Your task to perform on an android device: toggle improve location accuracy Image 0: 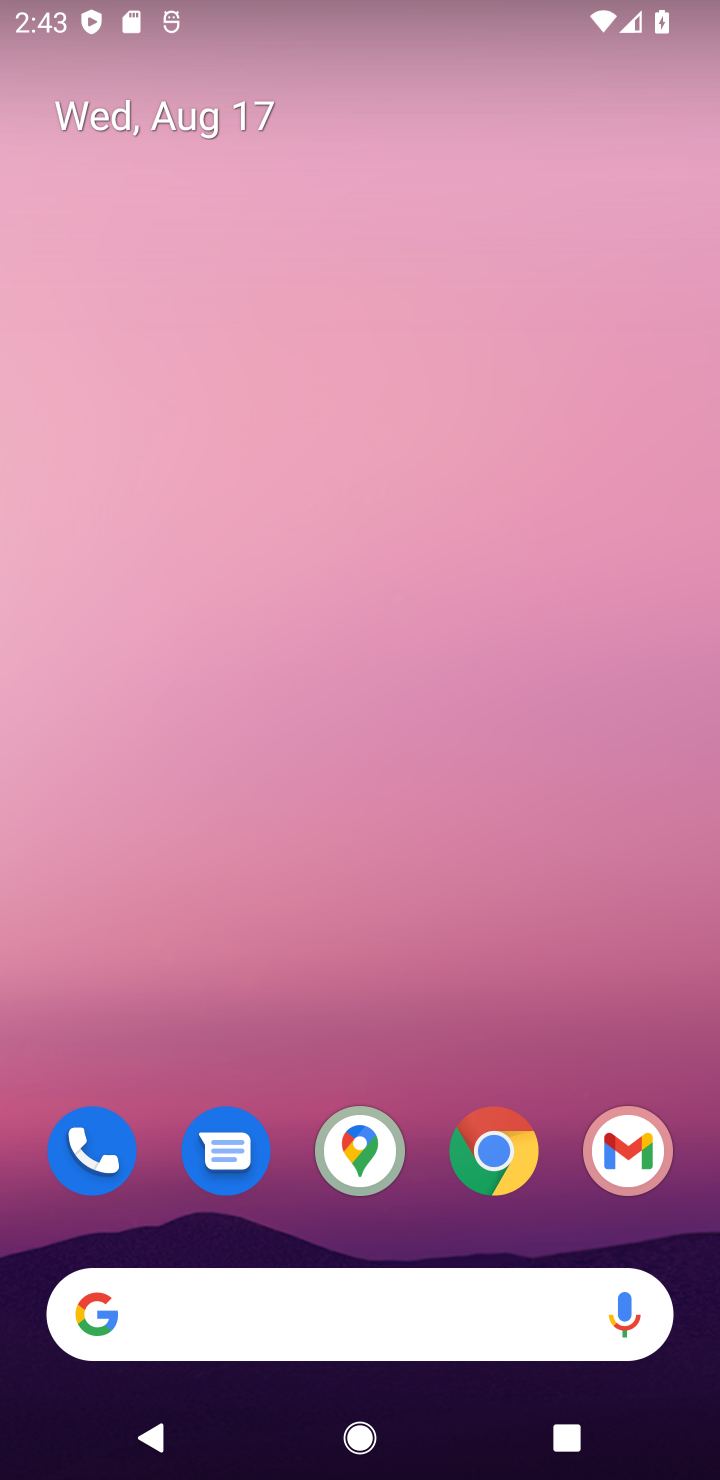
Step 0: drag from (312, 1249) to (328, 508)
Your task to perform on an android device: toggle improve location accuracy Image 1: 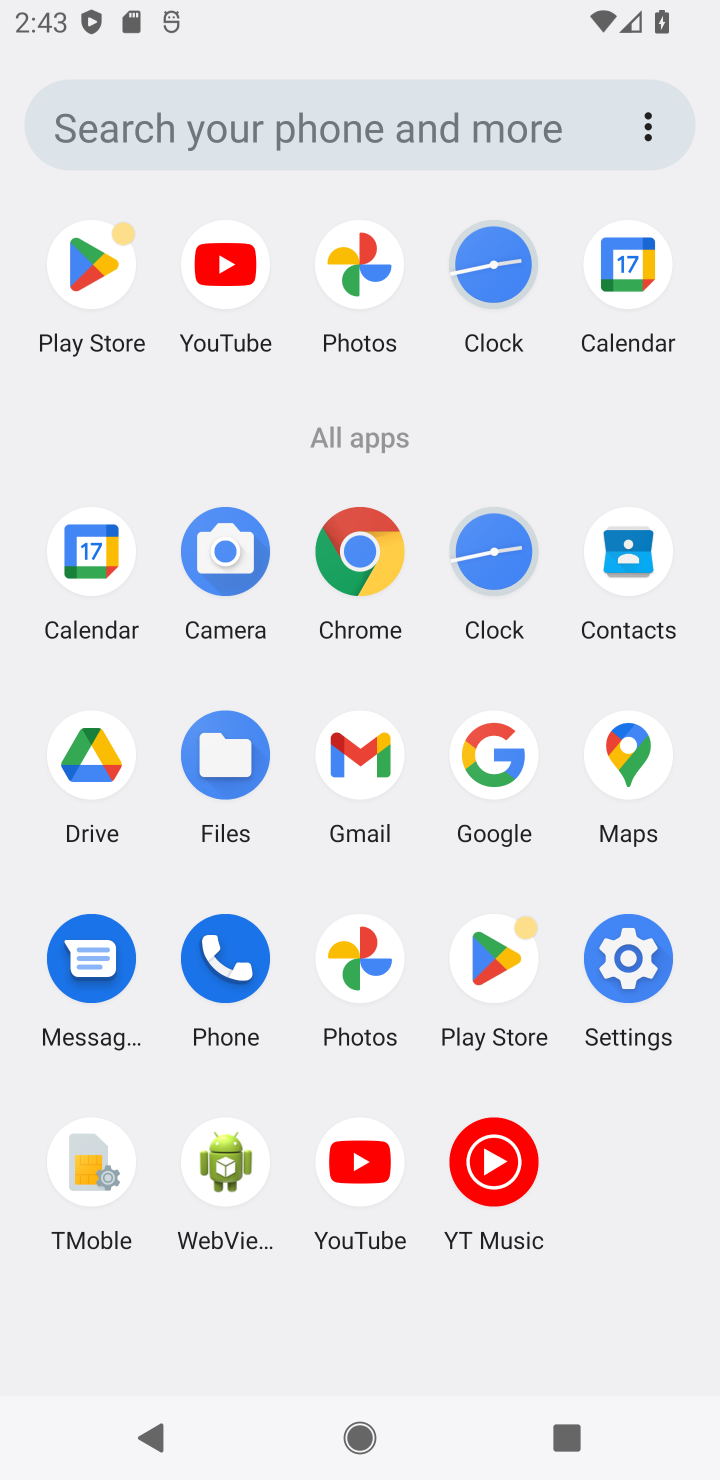
Step 1: click (621, 946)
Your task to perform on an android device: toggle improve location accuracy Image 2: 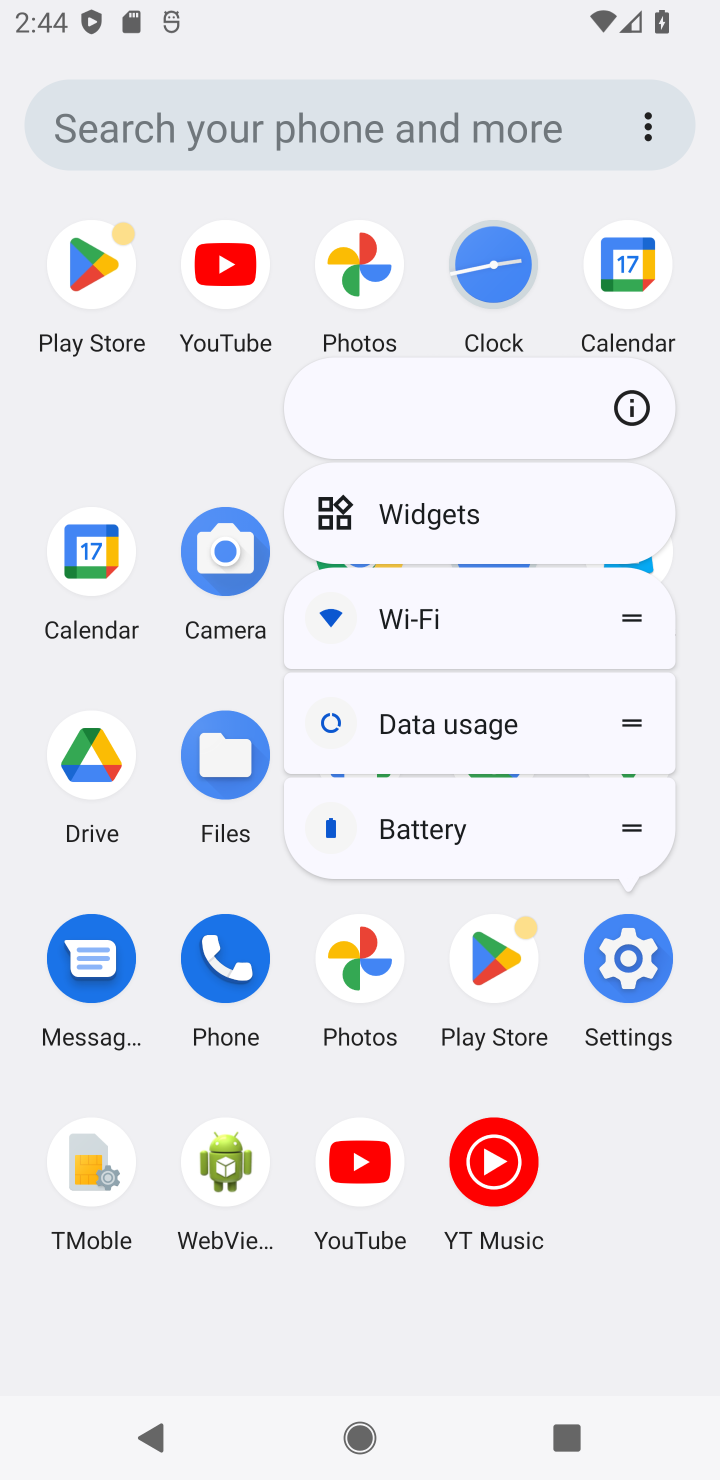
Step 2: click (665, 881)
Your task to perform on an android device: toggle improve location accuracy Image 3: 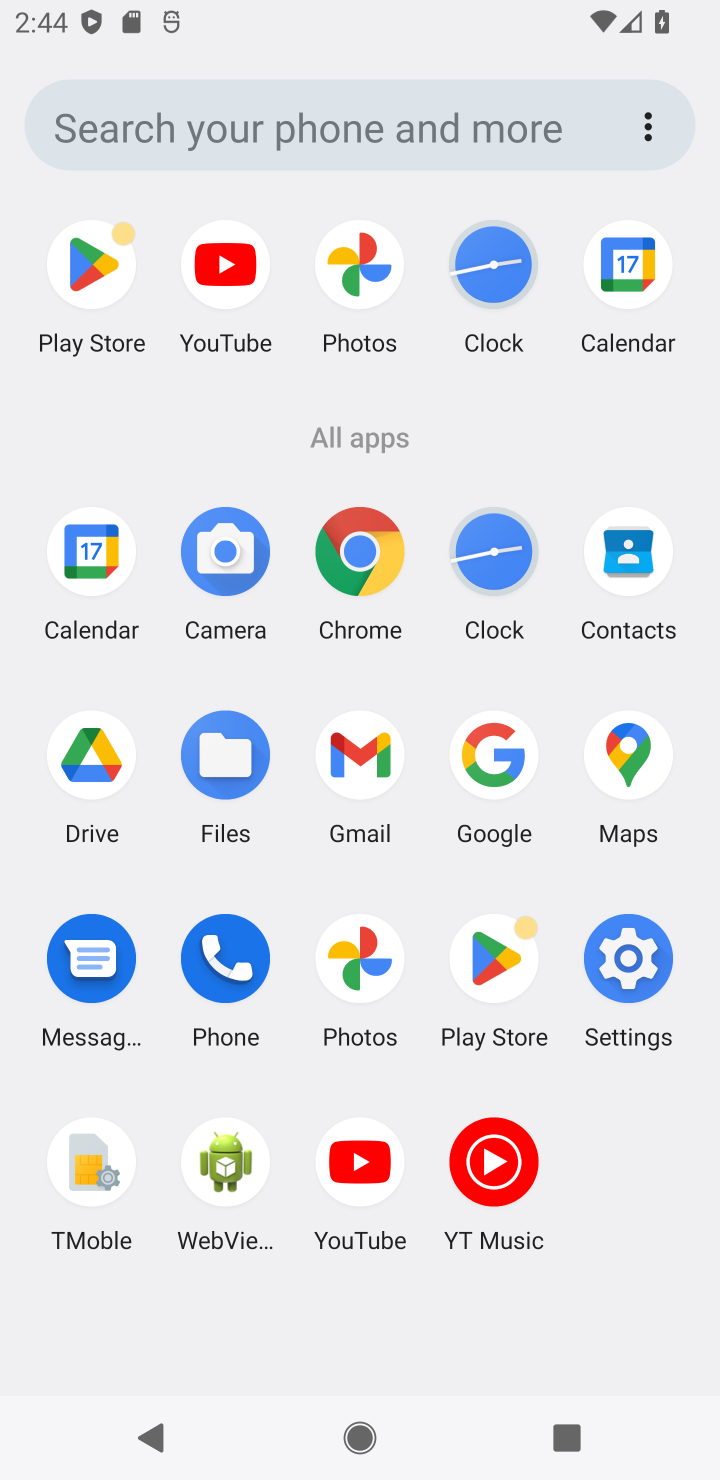
Step 3: click (632, 942)
Your task to perform on an android device: toggle improve location accuracy Image 4: 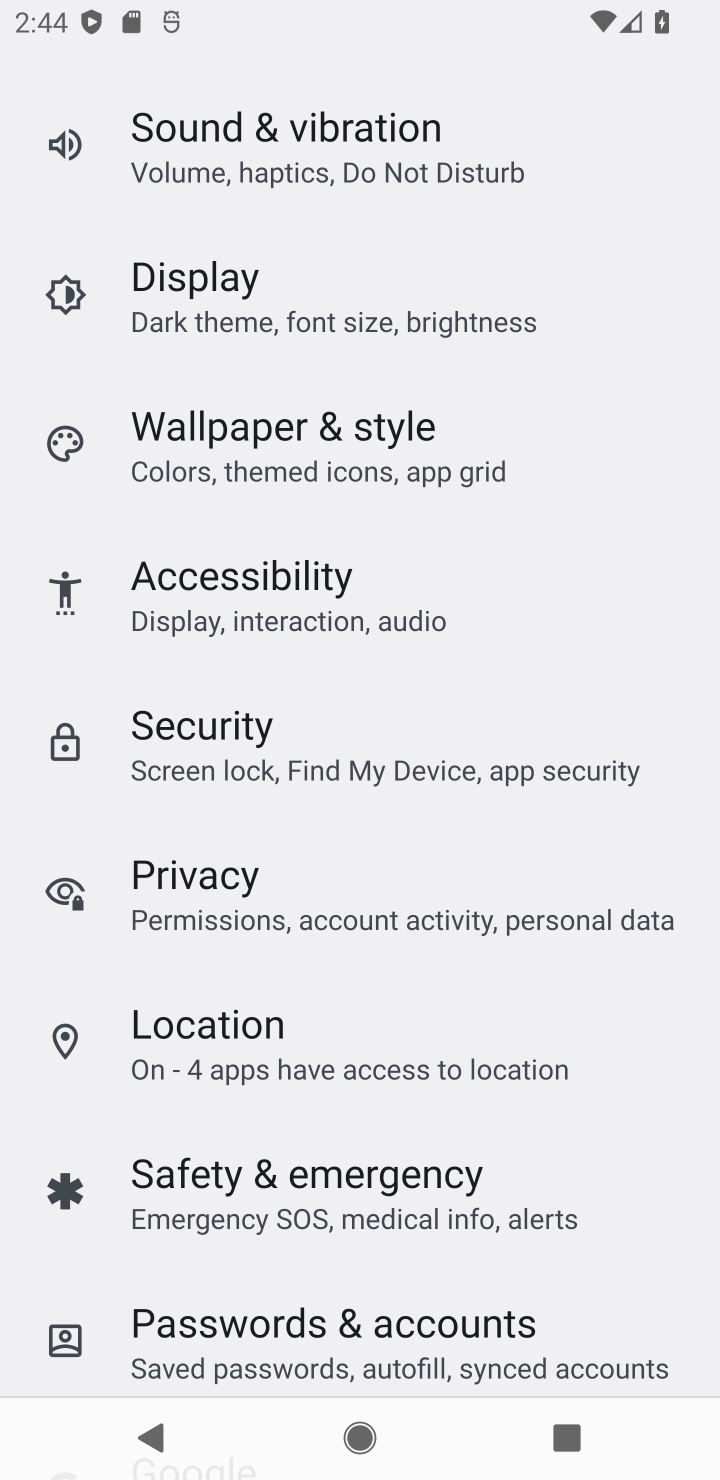
Step 4: click (322, 1053)
Your task to perform on an android device: toggle improve location accuracy Image 5: 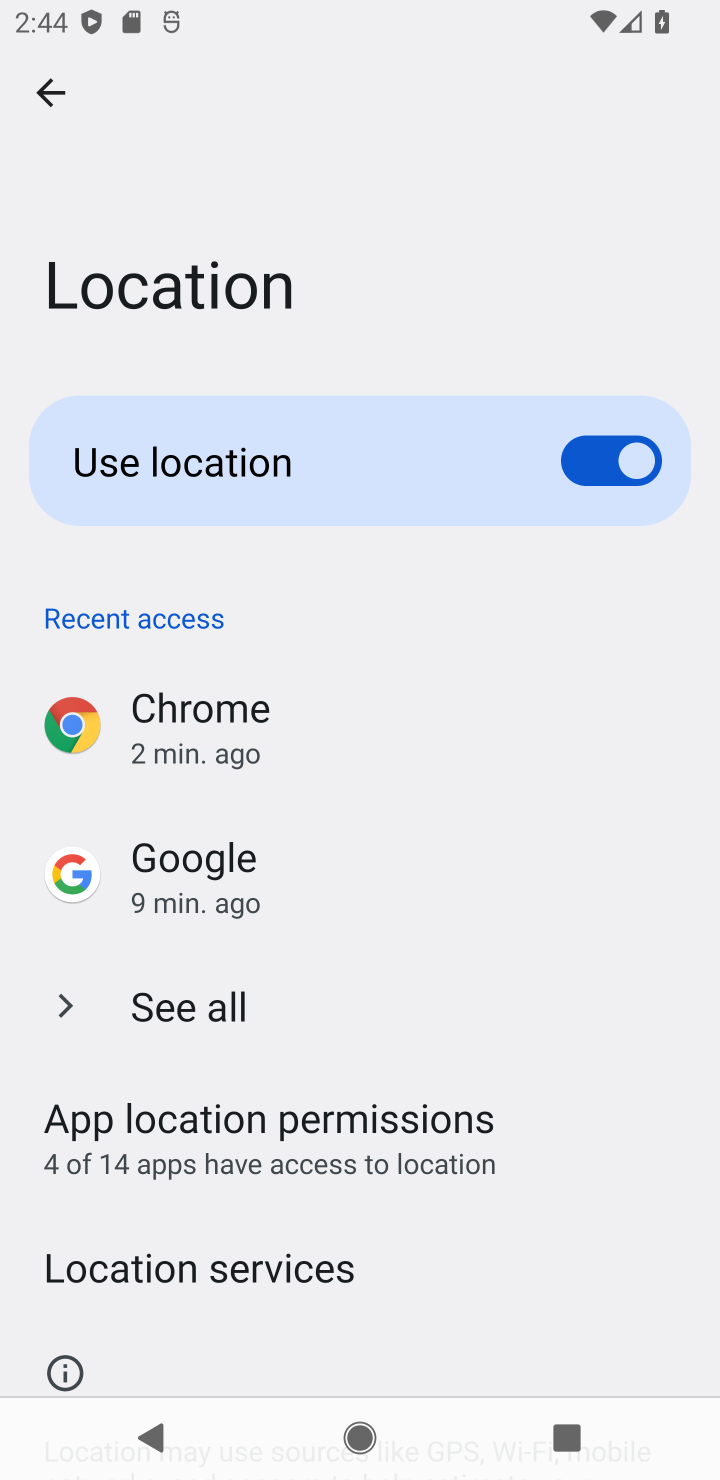
Step 5: click (242, 1262)
Your task to perform on an android device: toggle improve location accuracy Image 6: 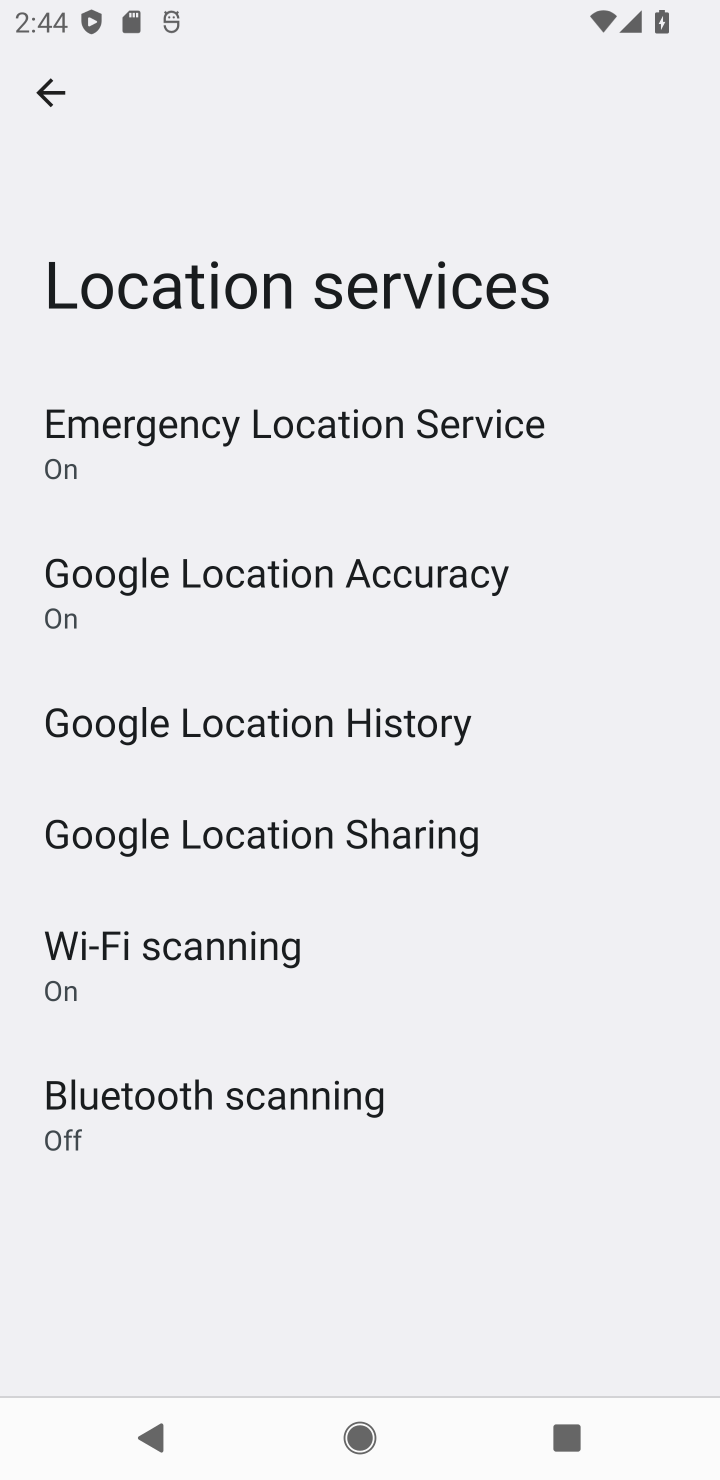
Step 6: click (248, 552)
Your task to perform on an android device: toggle improve location accuracy Image 7: 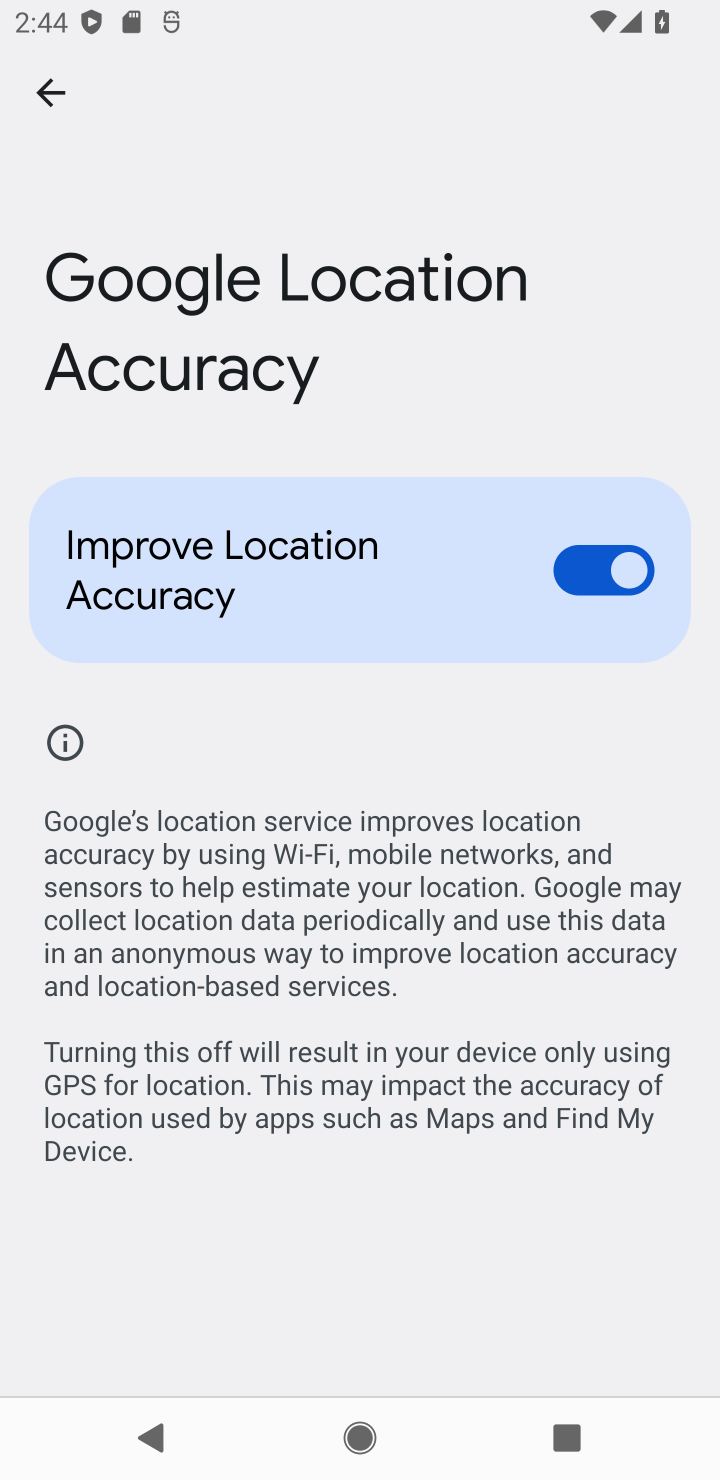
Step 7: click (605, 575)
Your task to perform on an android device: toggle improve location accuracy Image 8: 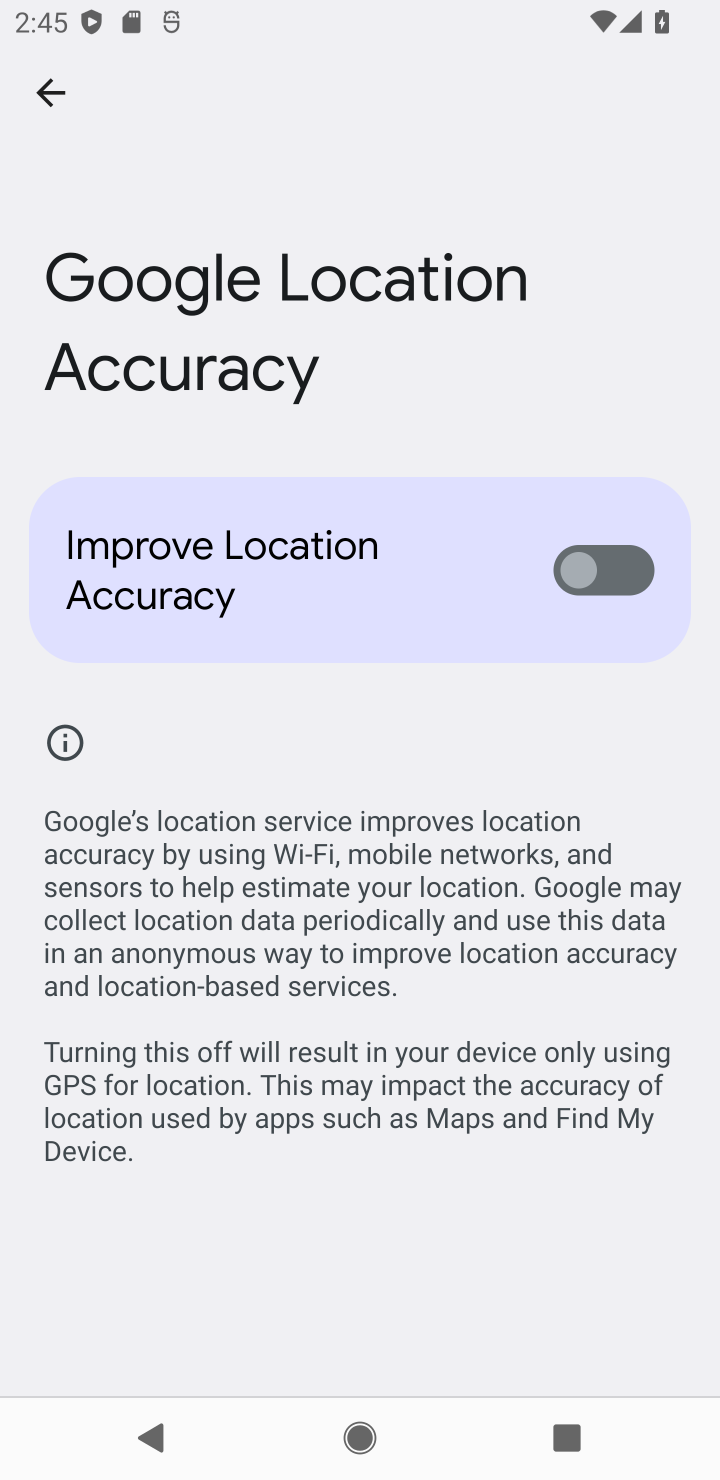
Step 8: task complete